Your task to perform on an android device: Show me the alarms in the clock app Image 0: 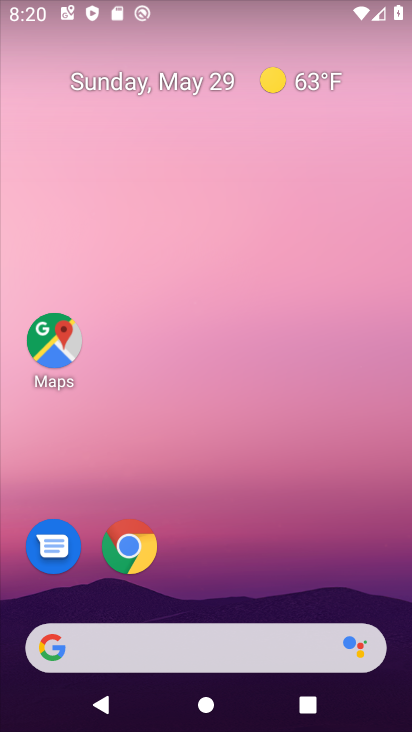
Step 0: press home button
Your task to perform on an android device: Show me the alarms in the clock app Image 1: 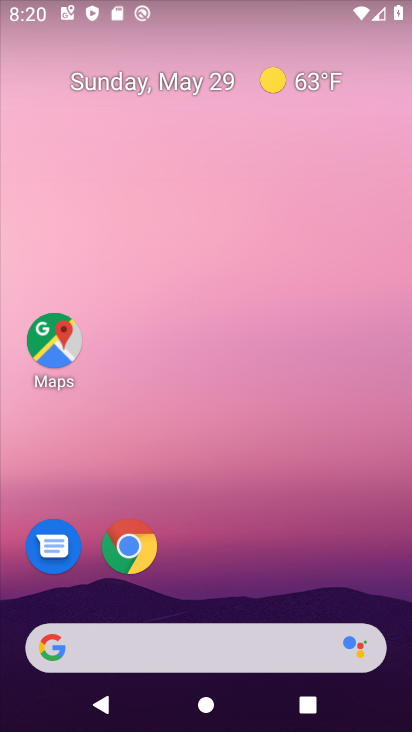
Step 1: drag from (143, 646) to (320, 103)
Your task to perform on an android device: Show me the alarms in the clock app Image 2: 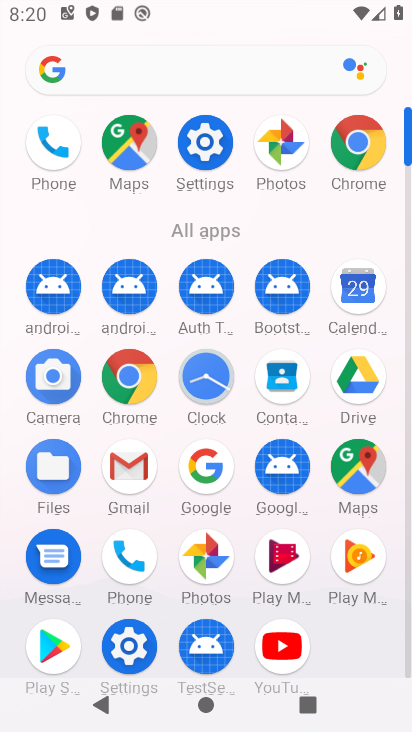
Step 2: click (209, 385)
Your task to perform on an android device: Show me the alarms in the clock app Image 3: 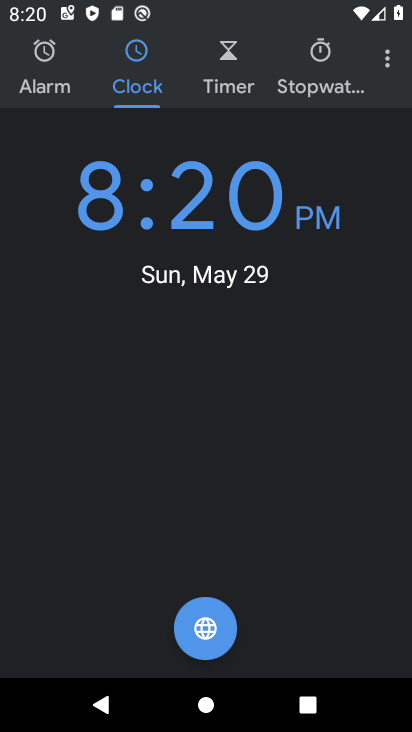
Step 3: click (51, 95)
Your task to perform on an android device: Show me the alarms in the clock app Image 4: 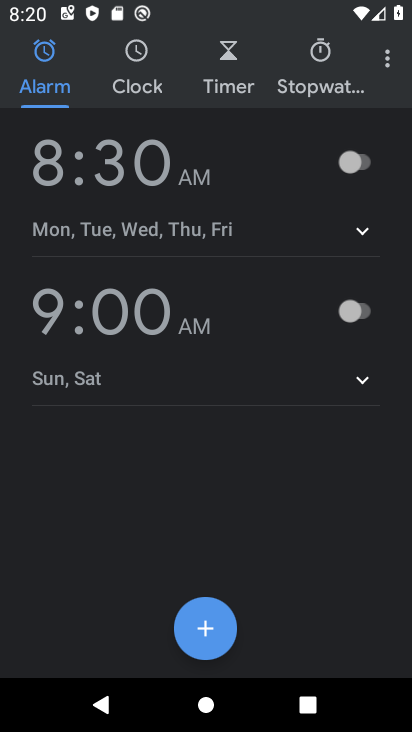
Step 4: task complete